Your task to perform on an android device: turn off priority inbox in the gmail app Image 0: 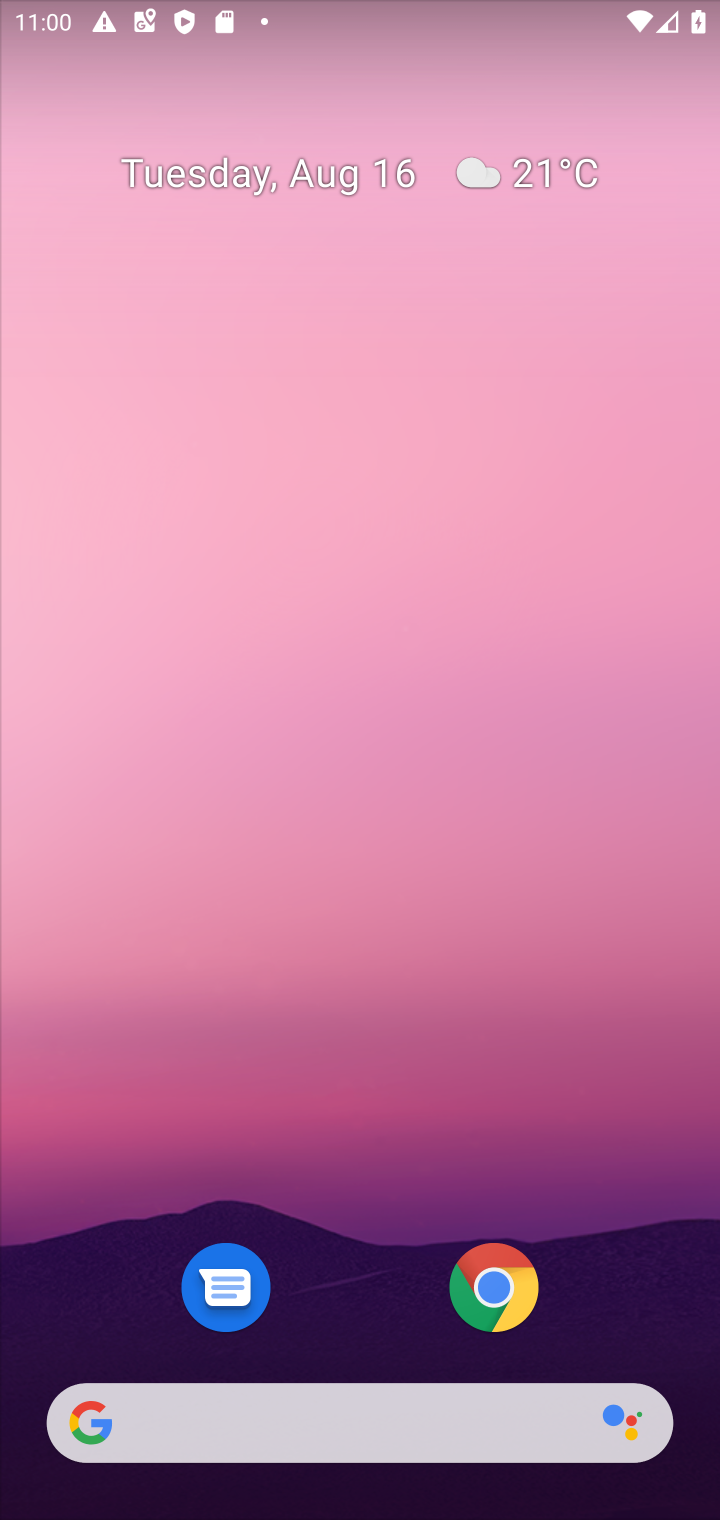
Step 0: drag from (654, 1324) to (613, 299)
Your task to perform on an android device: turn off priority inbox in the gmail app Image 1: 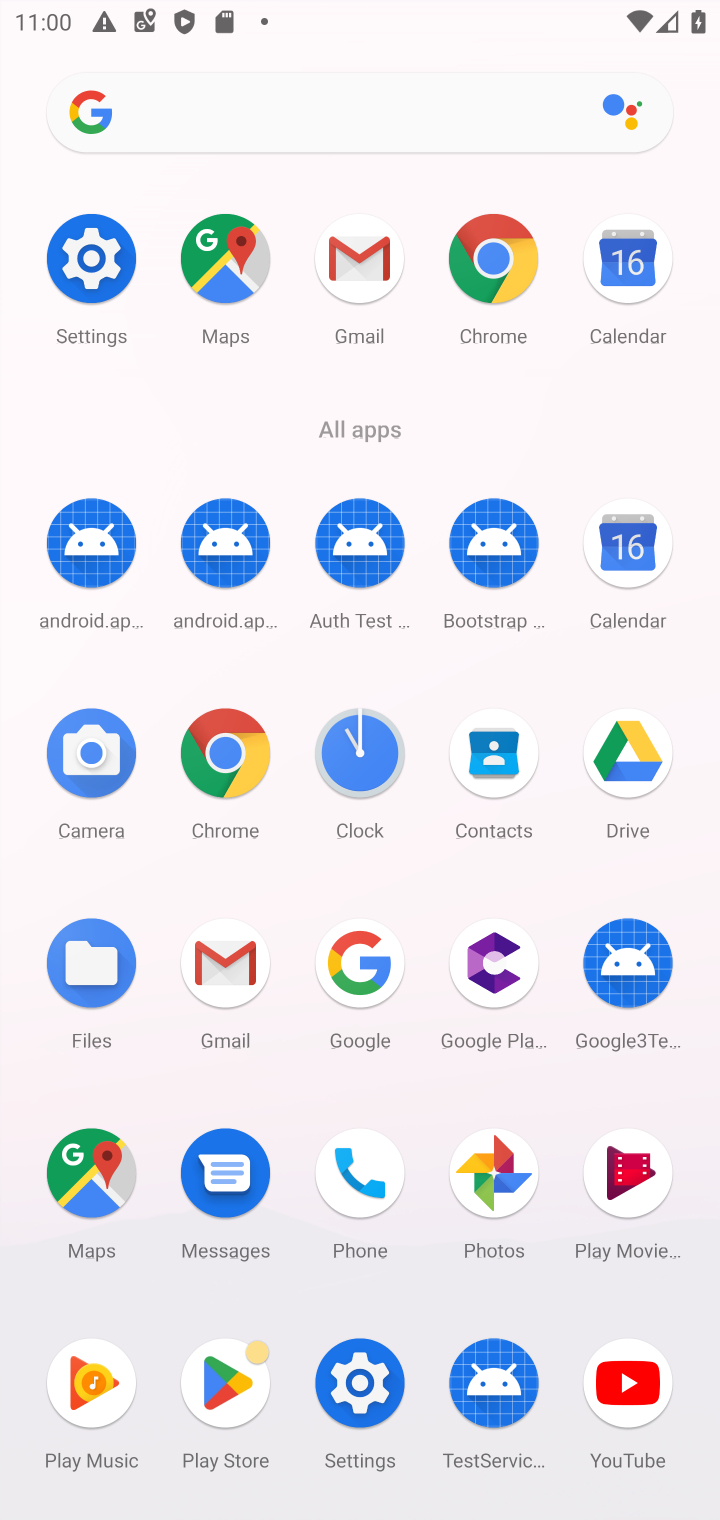
Step 1: click (215, 959)
Your task to perform on an android device: turn off priority inbox in the gmail app Image 2: 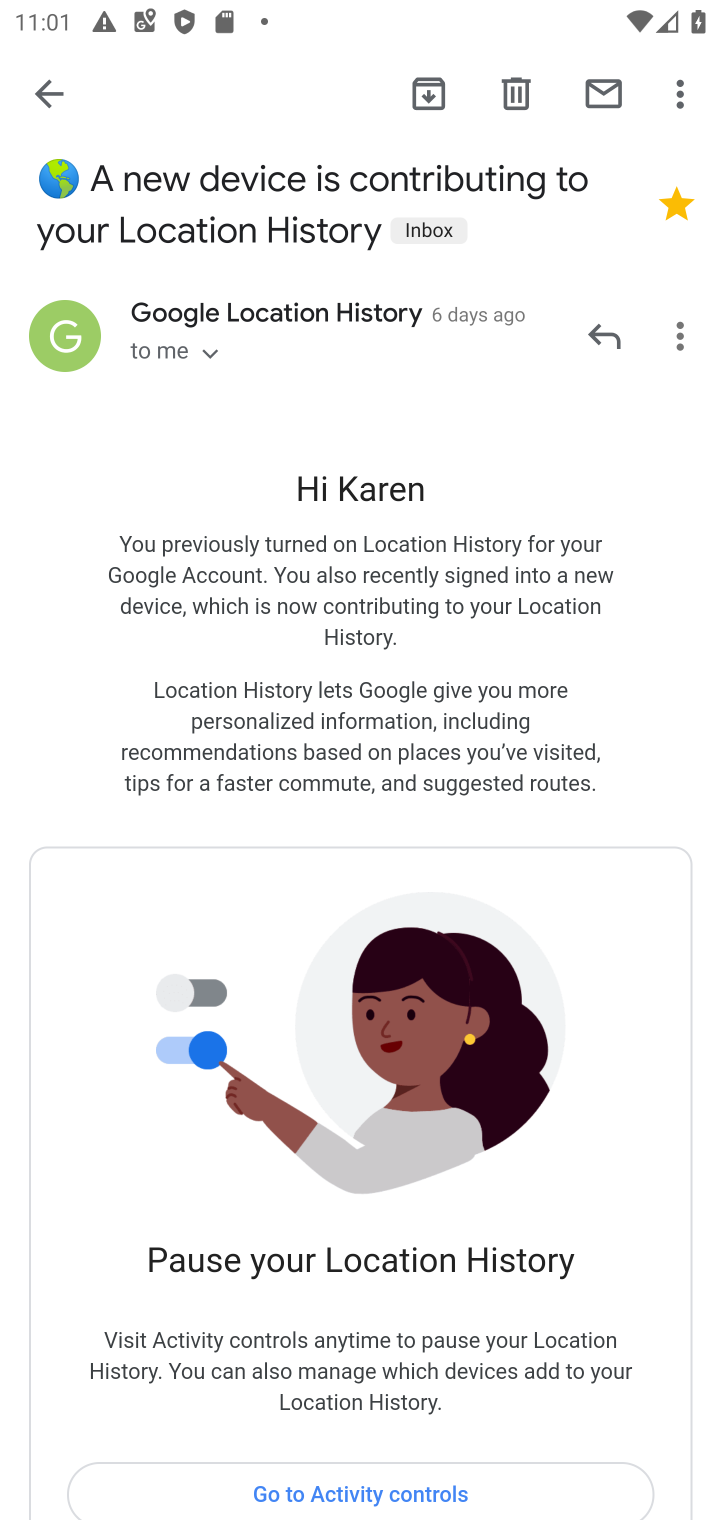
Step 2: press back button
Your task to perform on an android device: turn off priority inbox in the gmail app Image 3: 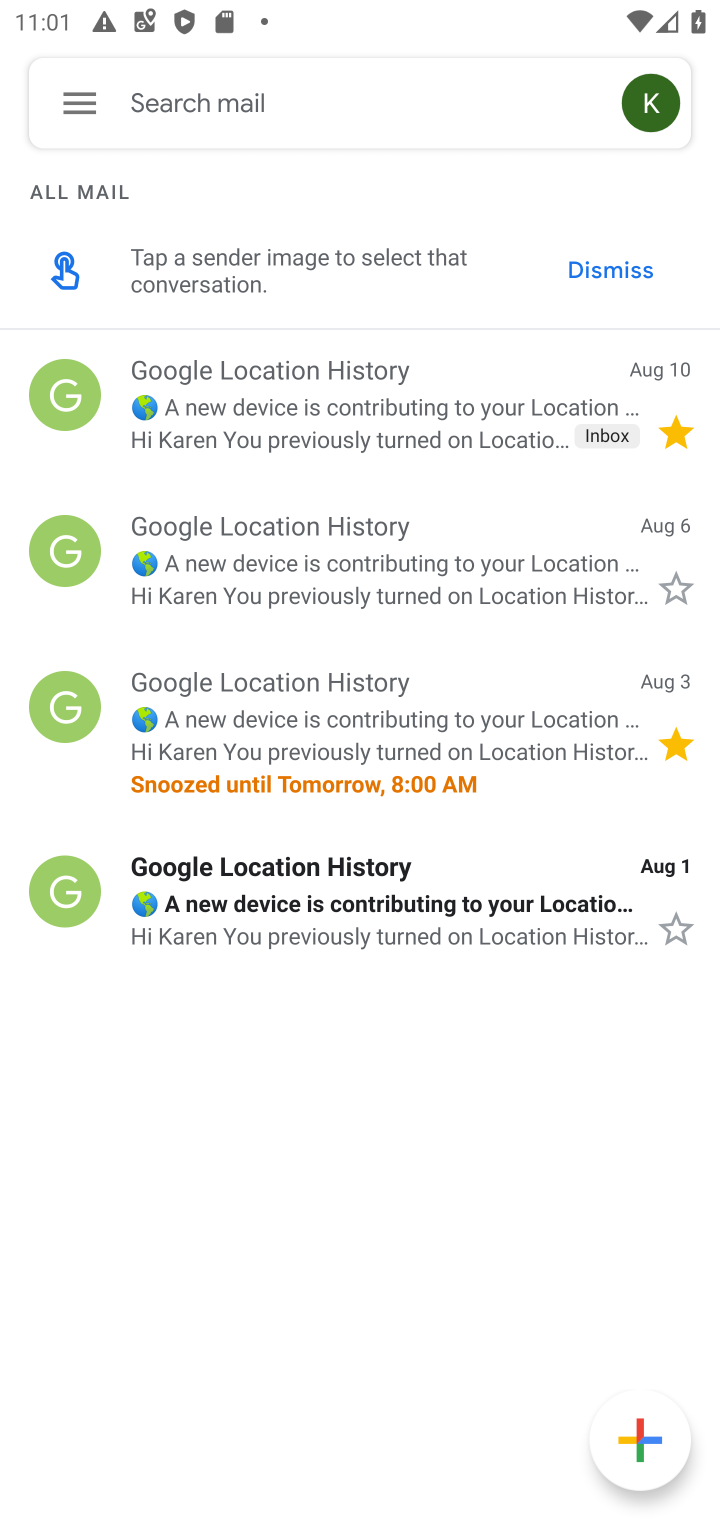
Step 3: click (72, 93)
Your task to perform on an android device: turn off priority inbox in the gmail app Image 4: 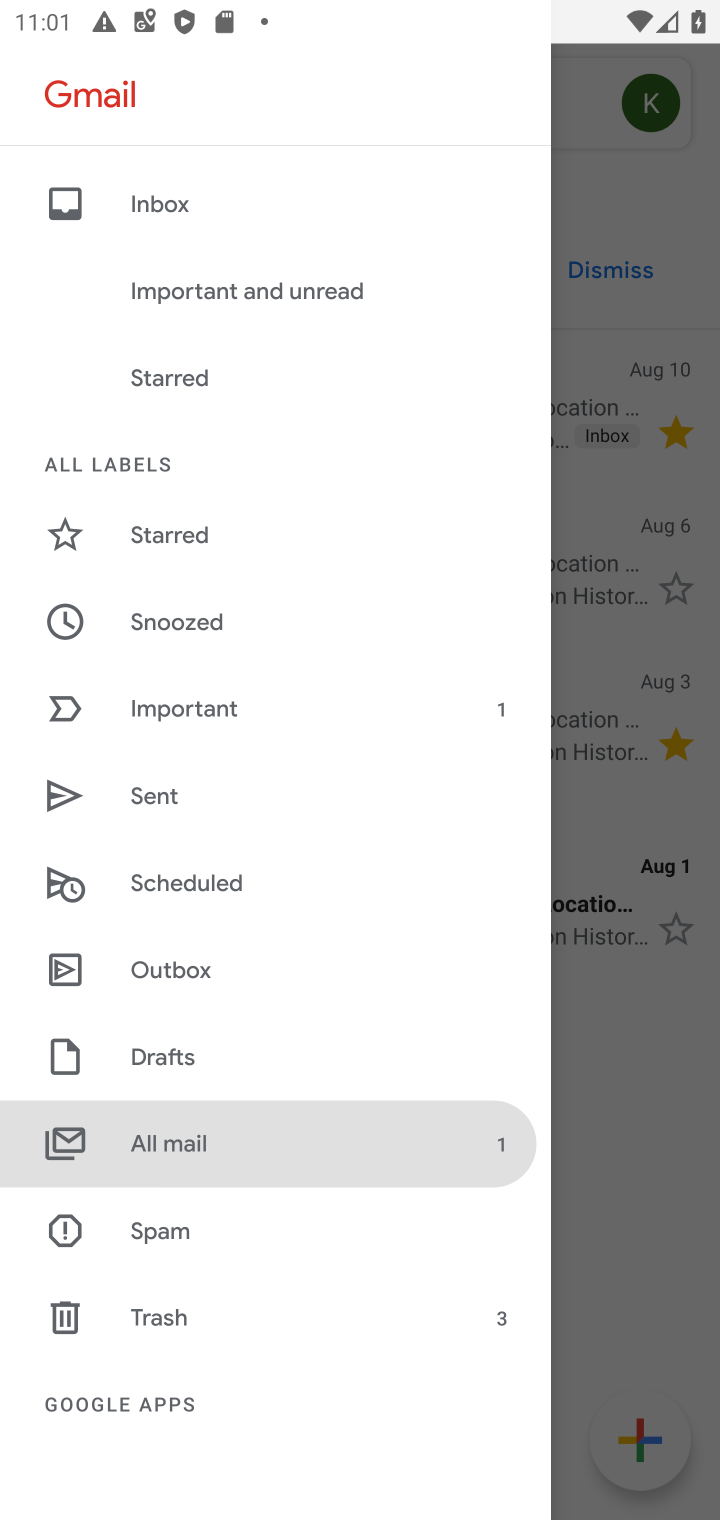
Step 4: drag from (375, 1225) to (341, 585)
Your task to perform on an android device: turn off priority inbox in the gmail app Image 5: 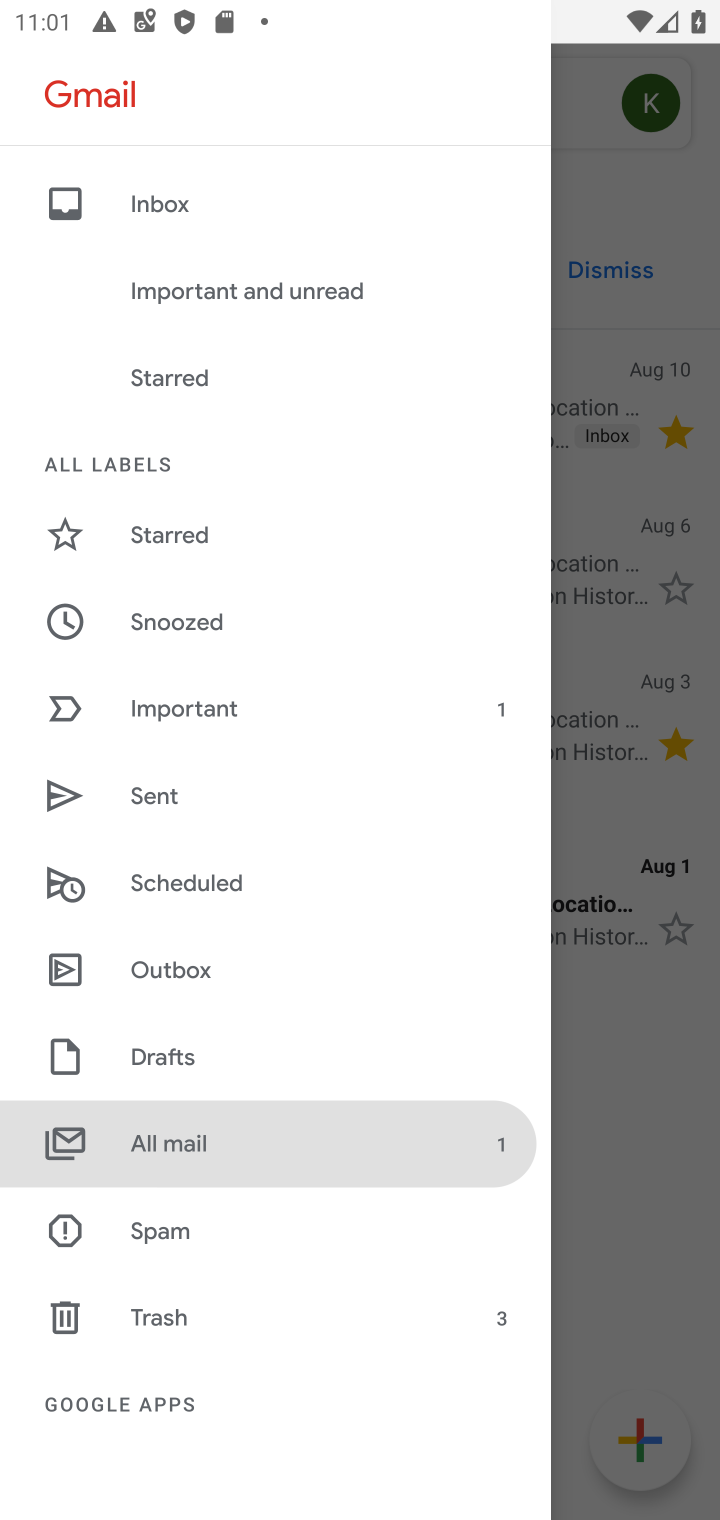
Step 5: drag from (274, 1424) to (304, 520)
Your task to perform on an android device: turn off priority inbox in the gmail app Image 6: 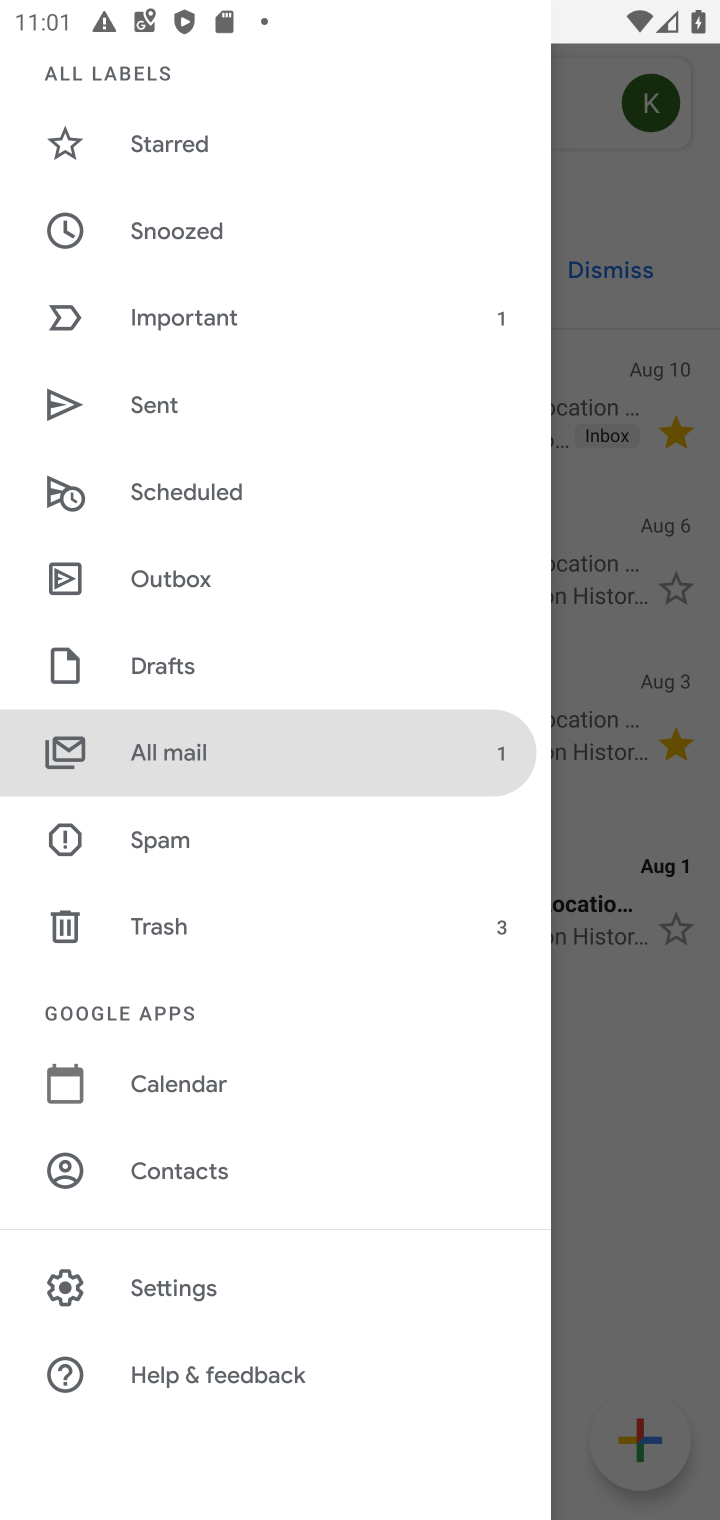
Step 6: click (150, 1284)
Your task to perform on an android device: turn off priority inbox in the gmail app Image 7: 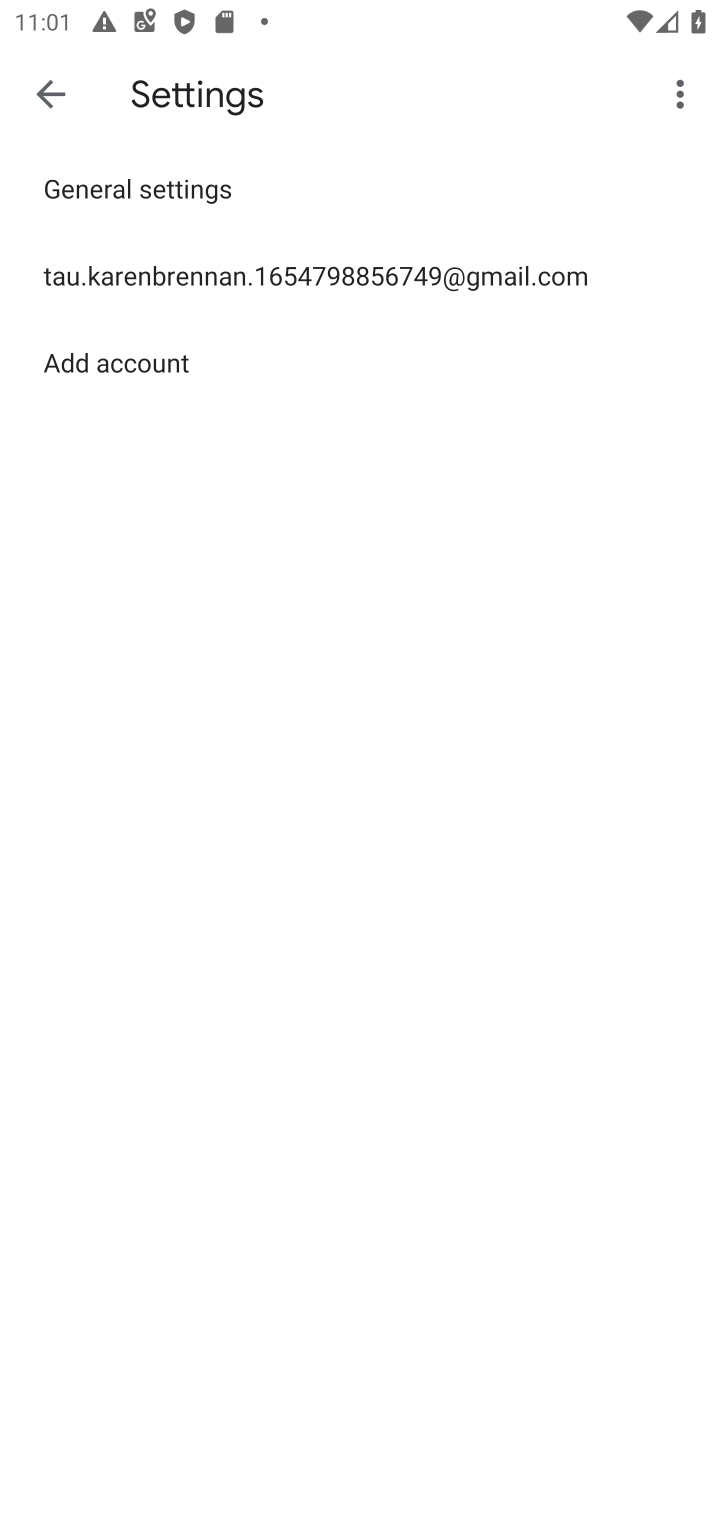
Step 7: click (276, 274)
Your task to perform on an android device: turn off priority inbox in the gmail app Image 8: 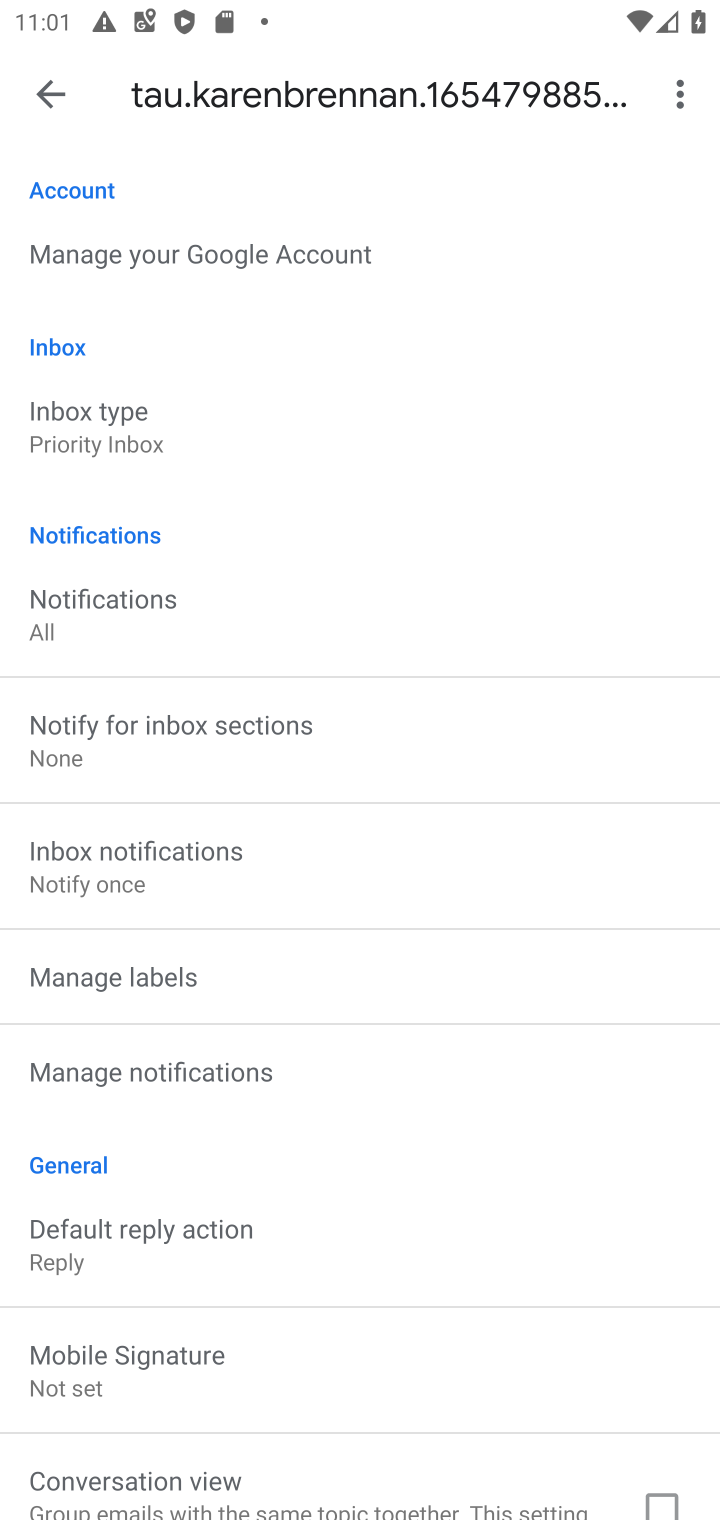
Step 8: click (84, 424)
Your task to perform on an android device: turn off priority inbox in the gmail app Image 9: 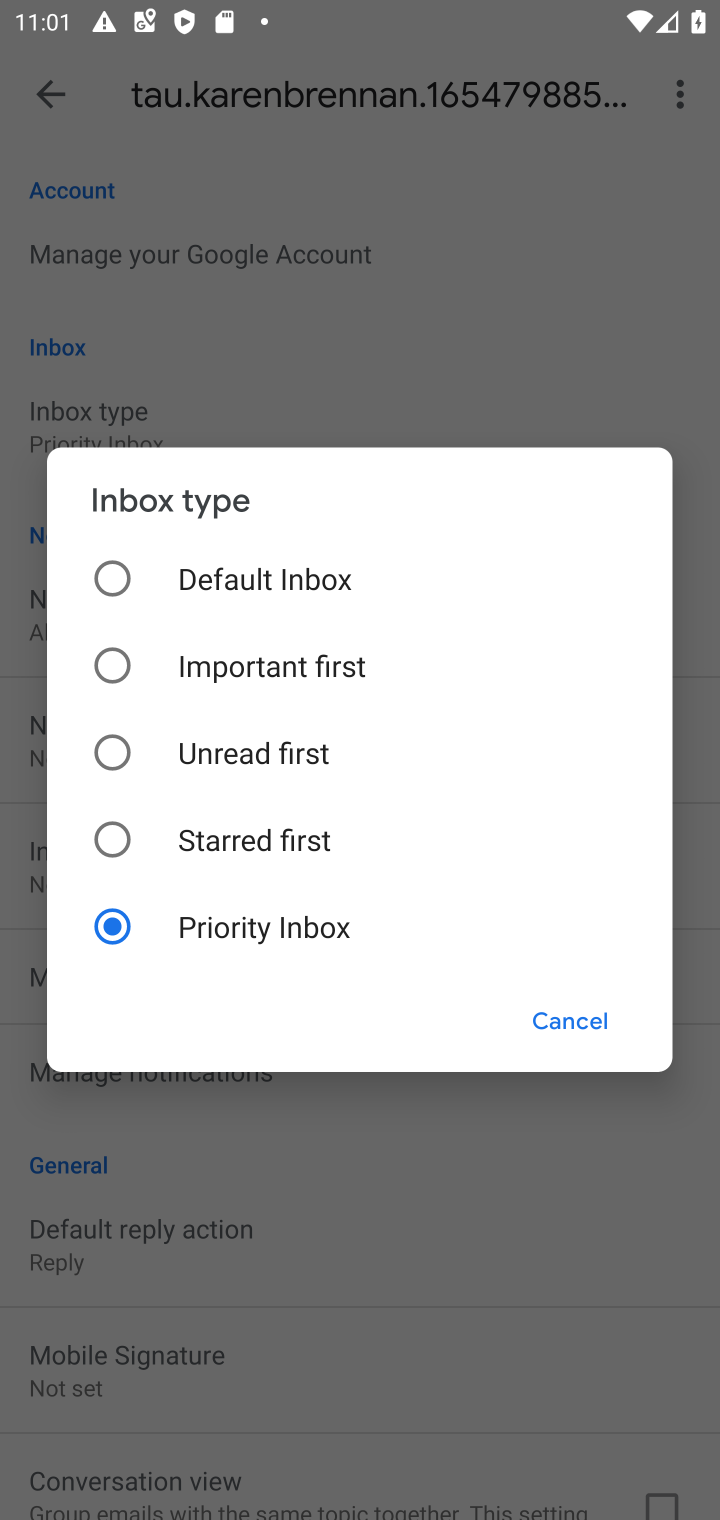
Step 9: click (104, 565)
Your task to perform on an android device: turn off priority inbox in the gmail app Image 10: 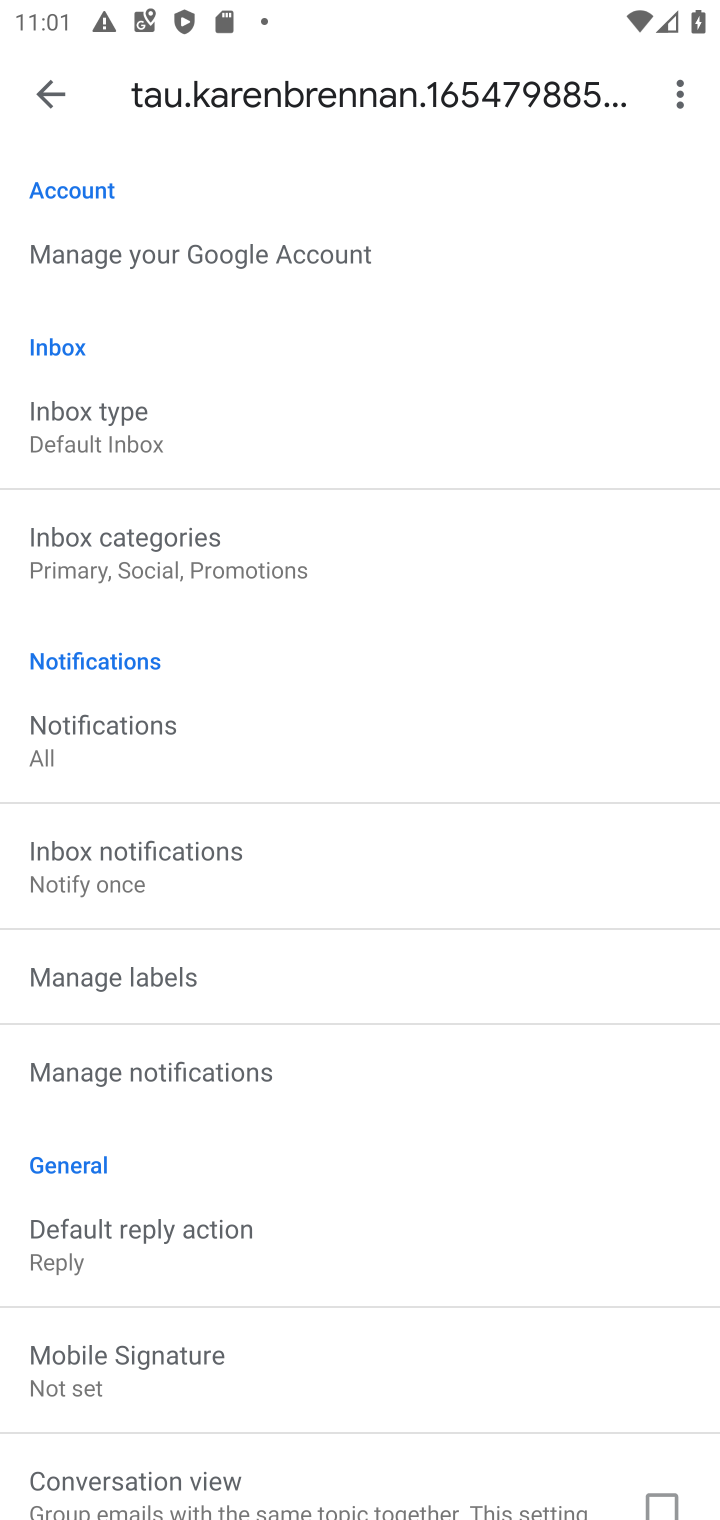
Step 10: task complete